Your task to perform on an android device: Search for "alienware area 51" on ebay.com, select the first entry, add it to the cart, then select checkout. Image 0: 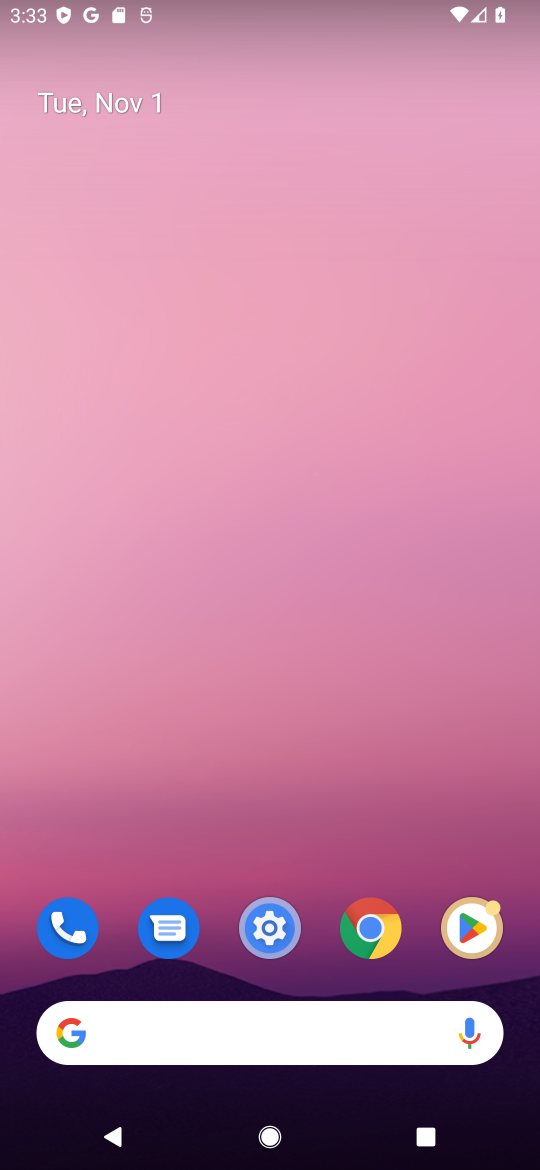
Step 0: click (369, 943)
Your task to perform on an android device: Search for "alienware area 51" on ebay.com, select the first entry, add it to the cart, then select checkout. Image 1: 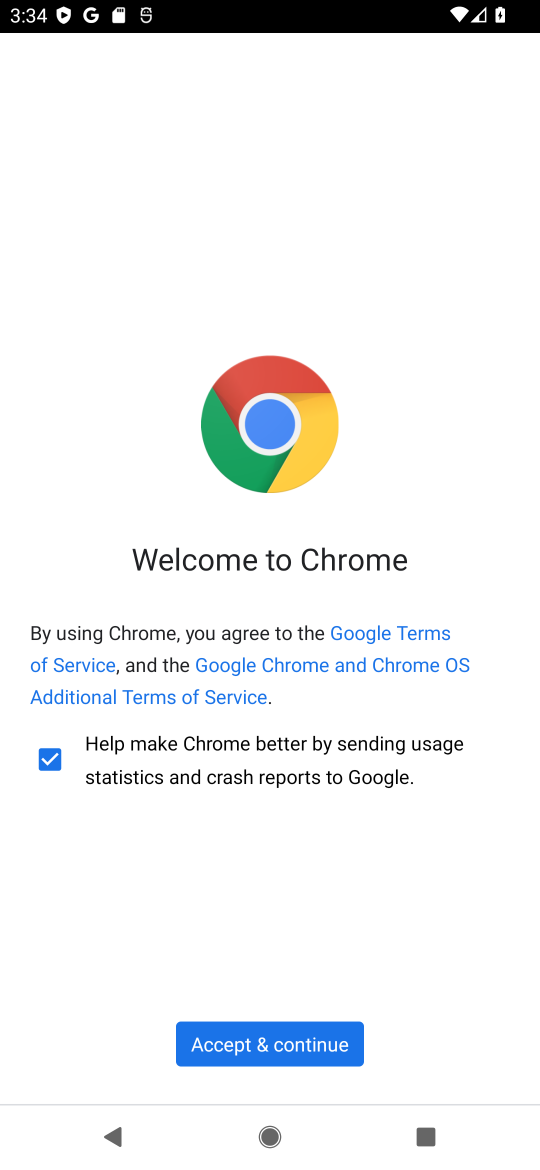
Step 1: click (306, 1041)
Your task to perform on an android device: Search for "alienware area 51" on ebay.com, select the first entry, add it to the cart, then select checkout. Image 2: 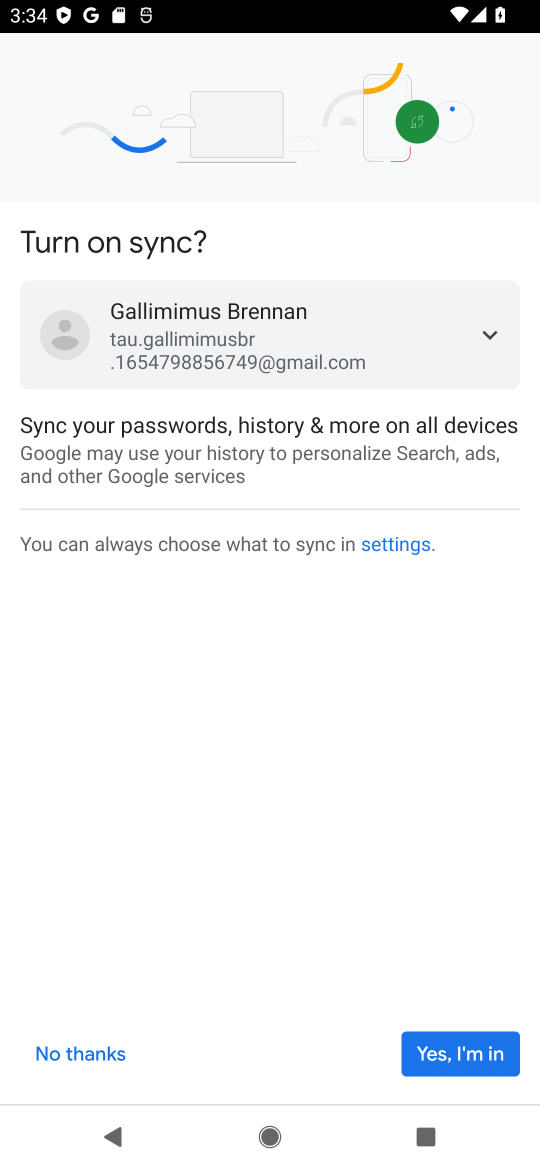
Step 2: click (487, 1056)
Your task to perform on an android device: Search for "alienware area 51" on ebay.com, select the first entry, add it to the cart, then select checkout. Image 3: 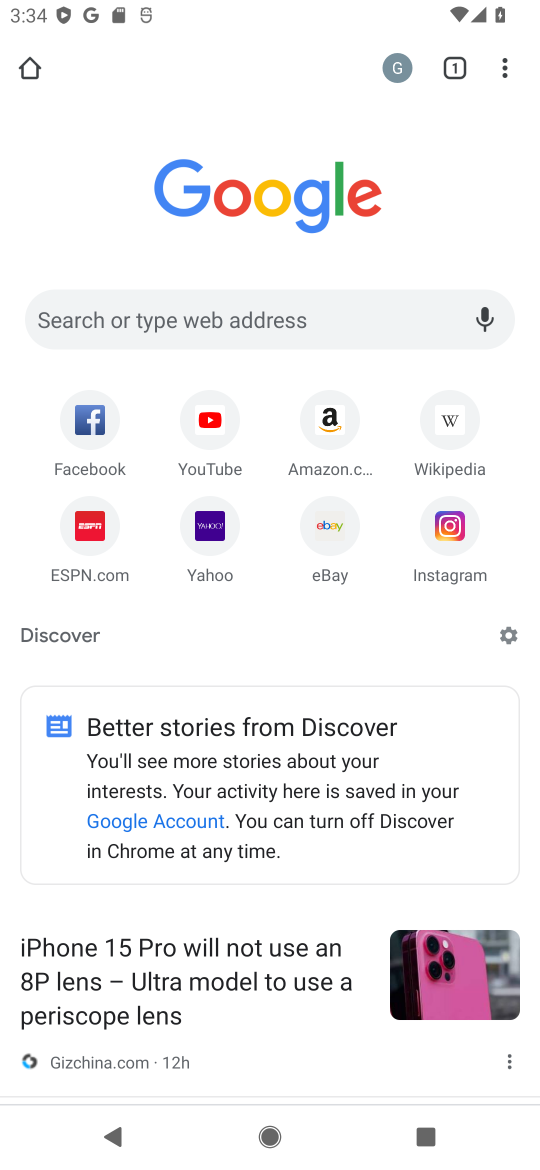
Step 3: click (224, 323)
Your task to perform on an android device: Search for "alienware area 51" on ebay.com, select the first entry, add it to the cart, then select checkout. Image 4: 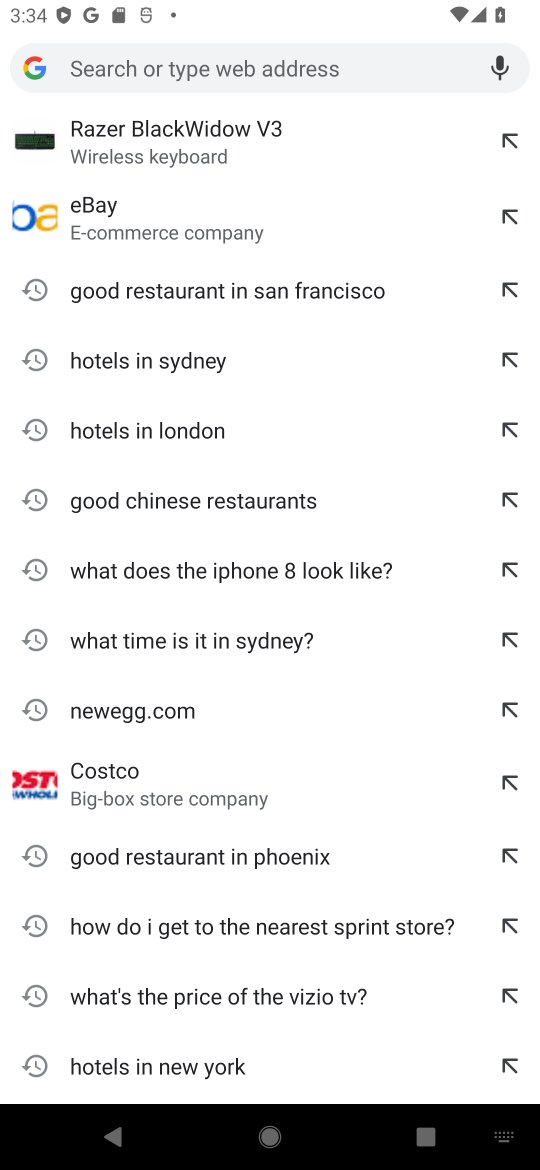
Step 4: type "ebay.com"
Your task to perform on an android device: Search for "alienware area 51" on ebay.com, select the first entry, add it to the cart, then select checkout. Image 5: 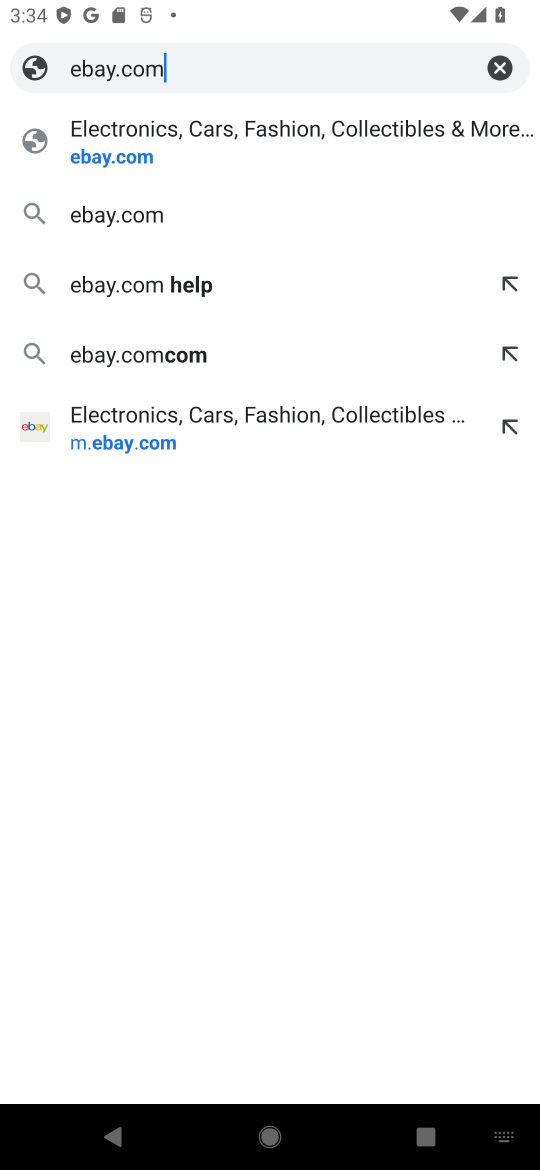
Step 5: press enter
Your task to perform on an android device: Search for "alienware area 51" on ebay.com, select the first entry, add it to the cart, then select checkout. Image 6: 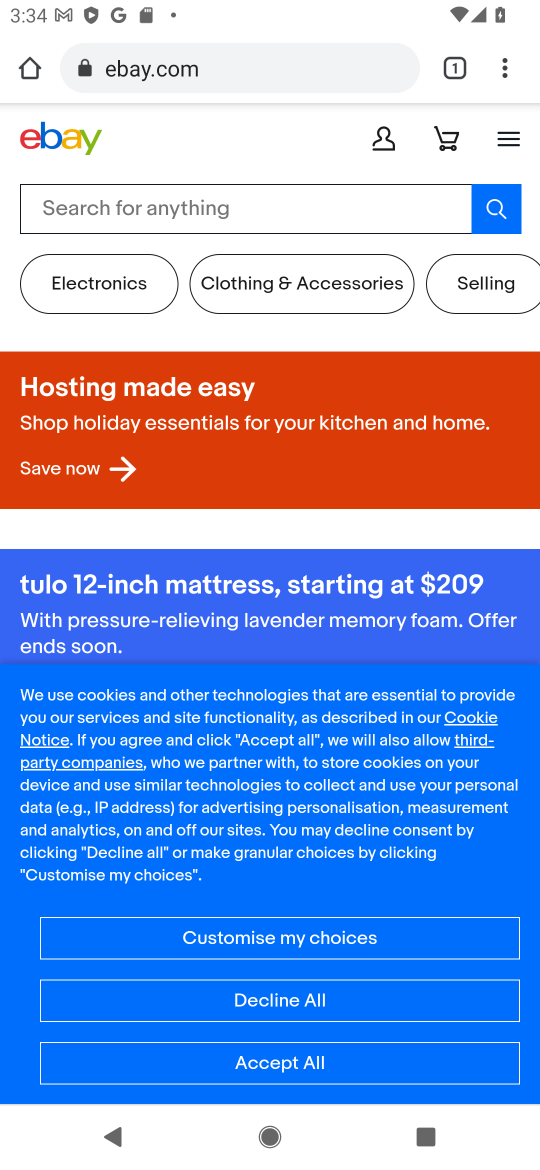
Step 6: click (293, 213)
Your task to perform on an android device: Search for "alienware area 51" on ebay.com, select the first entry, add it to the cart, then select checkout. Image 7: 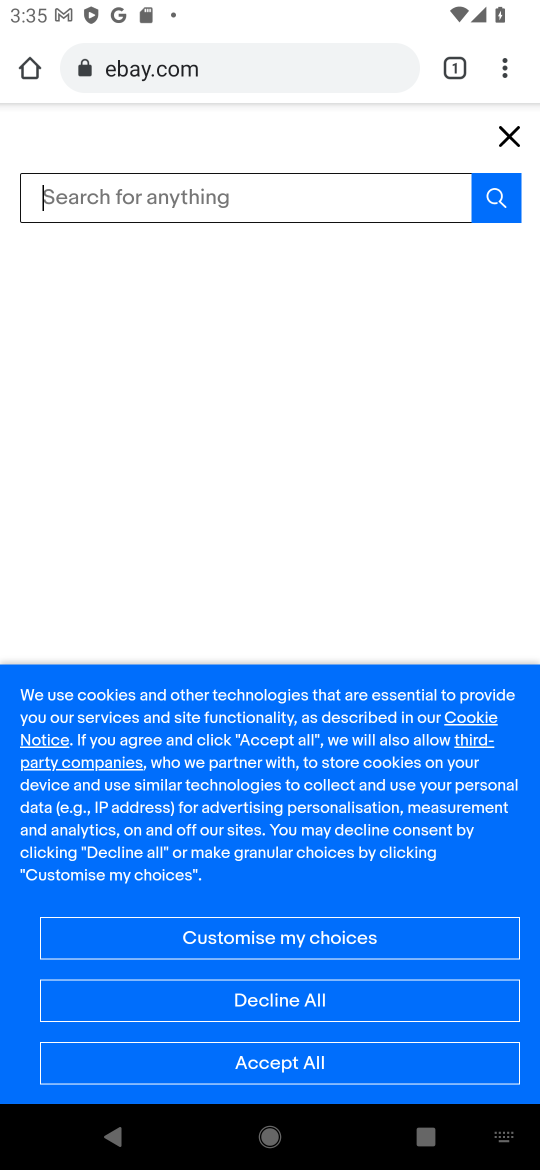
Step 7: click (321, 1067)
Your task to perform on an android device: Search for "alienware area 51" on ebay.com, select the first entry, add it to the cart, then select checkout. Image 8: 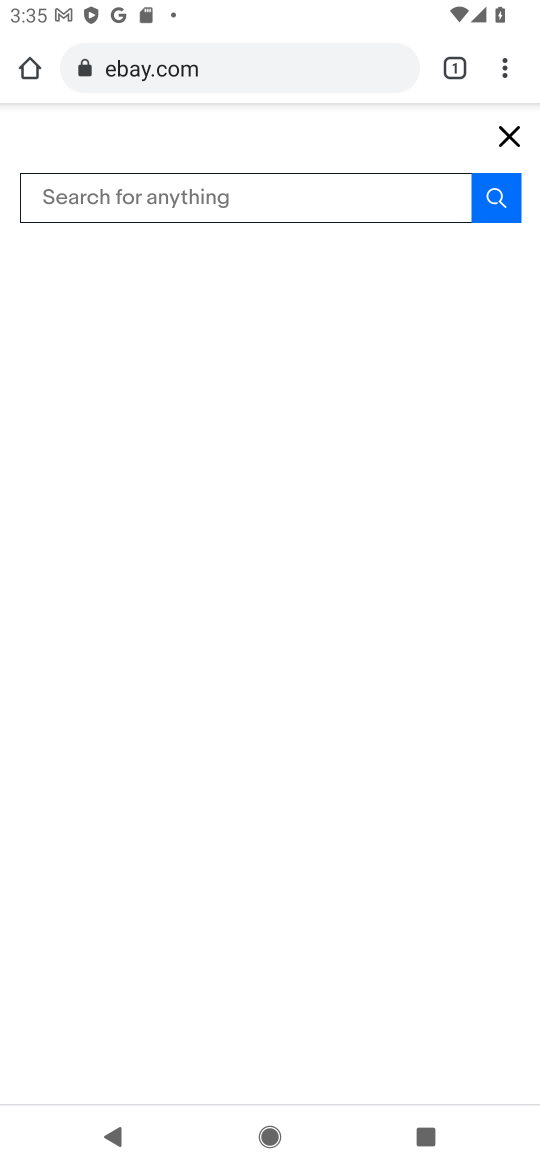
Step 8: click (276, 203)
Your task to perform on an android device: Search for "alienware area 51" on ebay.com, select the first entry, add it to the cart, then select checkout. Image 9: 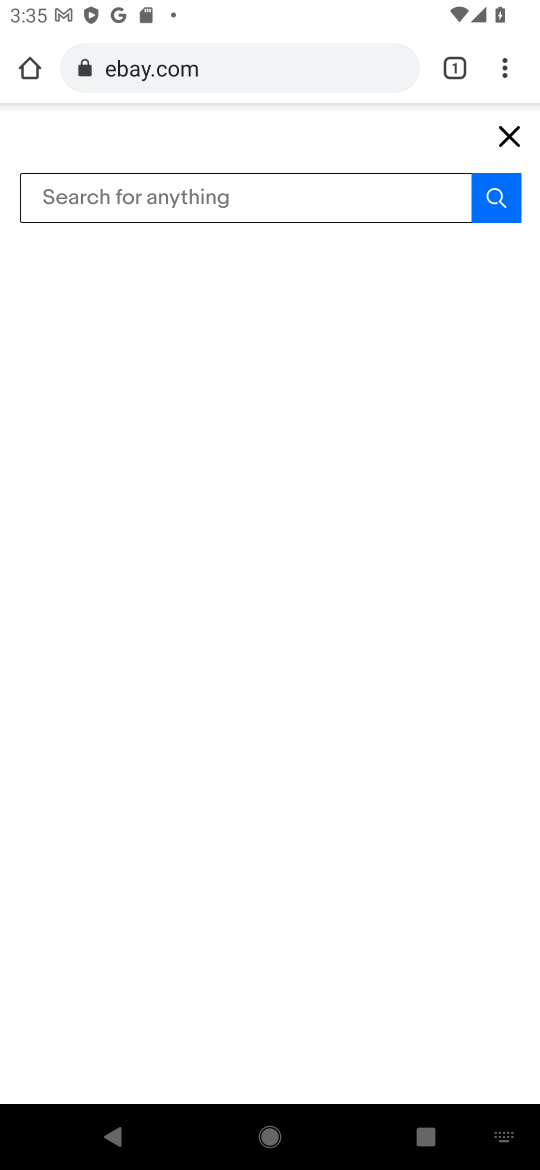
Step 9: type "alienware area 51"
Your task to perform on an android device: Search for "alienware area 51" on ebay.com, select the first entry, add it to the cart, then select checkout. Image 10: 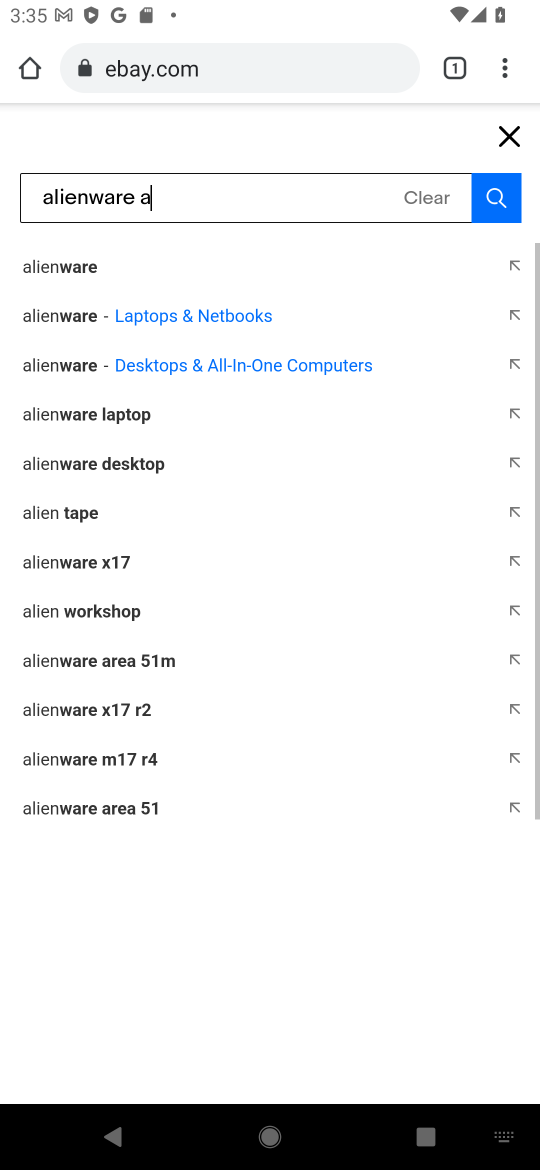
Step 10: type ""
Your task to perform on an android device: Search for "alienware area 51" on ebay.com, select the first entry, add it to the cart, then select checkout. Image 11: 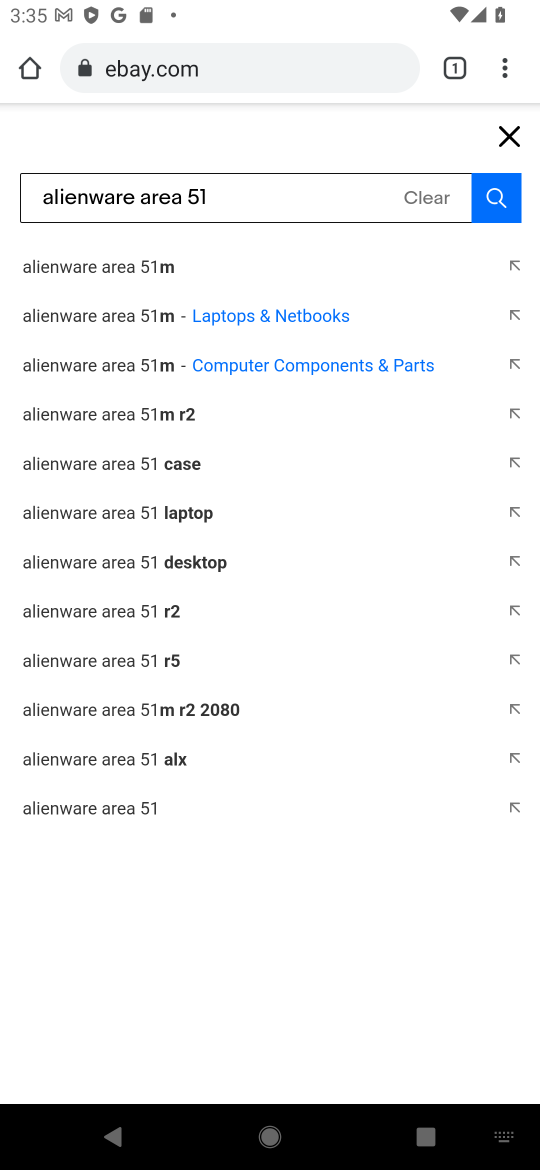
Step 11: press enter
Your task to perform on an android device: Search for "alienware area 51" on ebay.com, select the first entry, add it to the cart, then select checkout. Image 12: 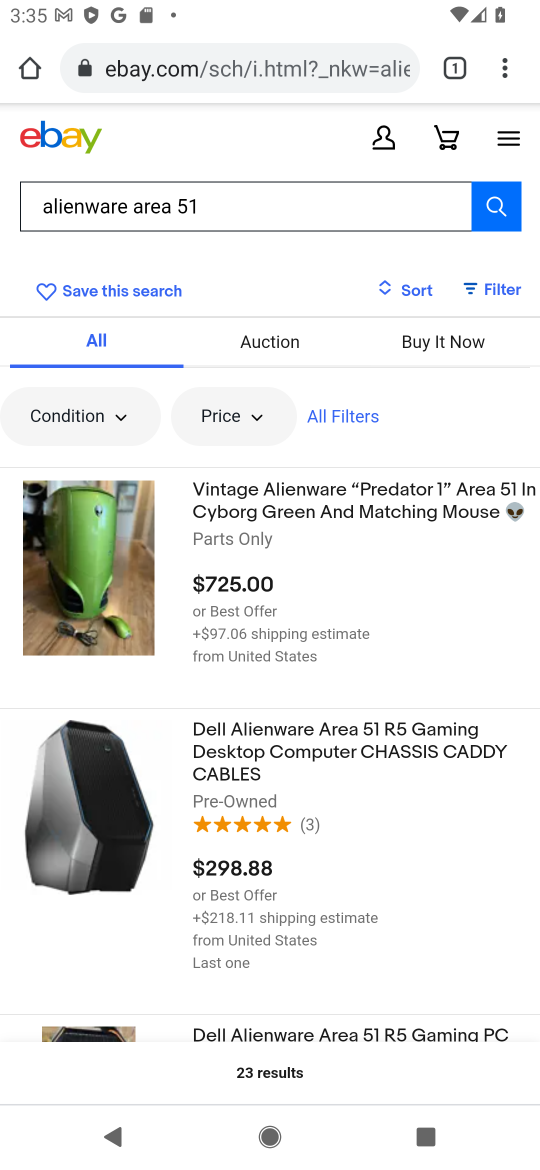
Step 12: click (304, 513)
Your task to perform on an android device: Search for "alienware area 51" on ebay.com, select the first entry, add it to the cart, then select checkout. Image 13: 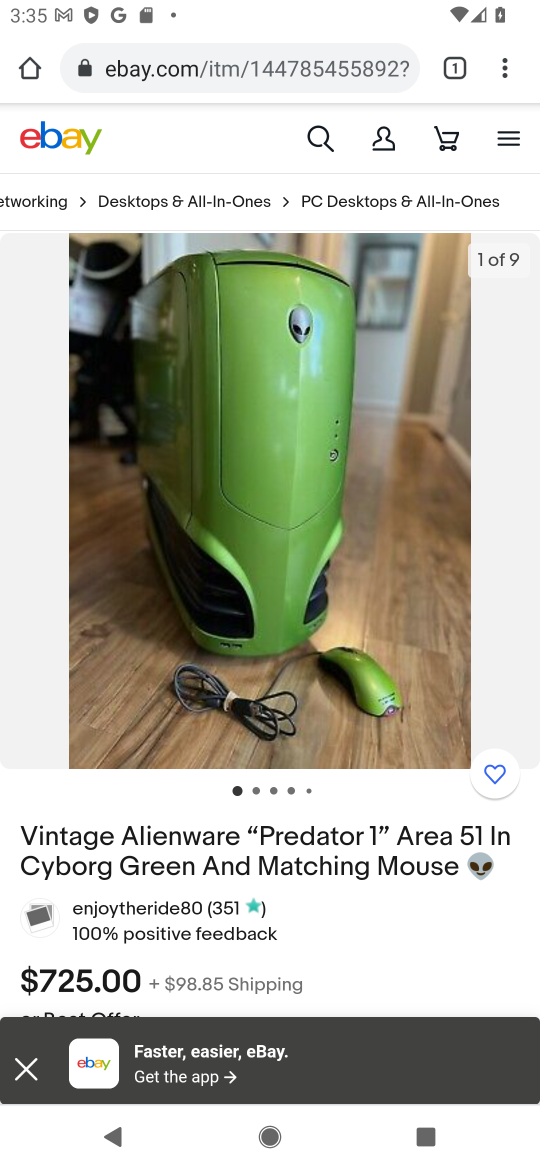
Step 13: drag from (298, 902) to (330, 507)
Your task to perform on an android device: Search for "alienware area 51" on ebay.com, select the first entry, add it to the cart, then select checkout. Image 14: 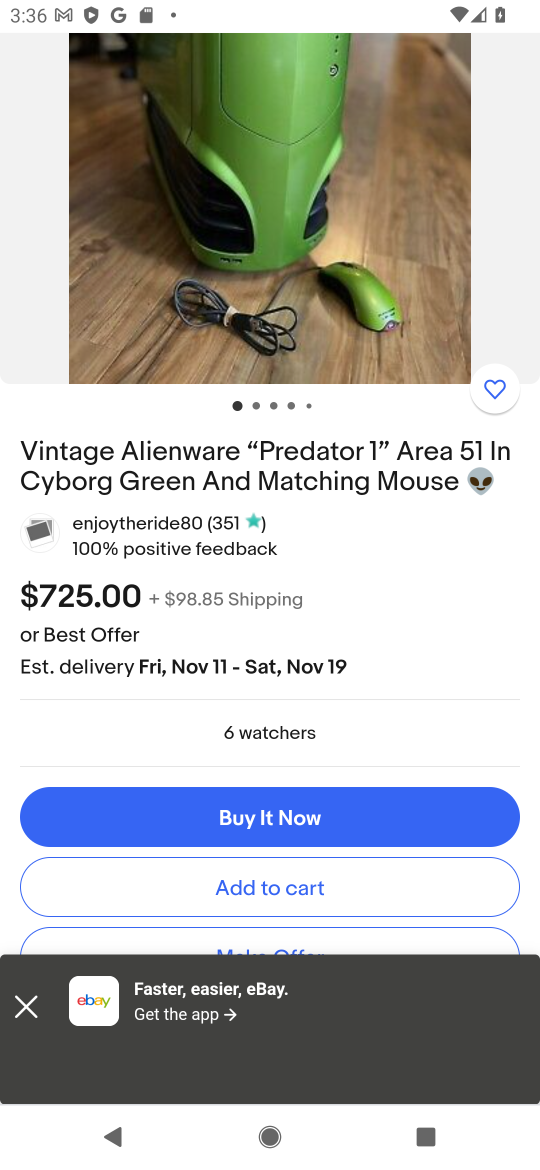
Step 14: click (336, 889)
Your task to perform on an android device: Search for "alienware area 51" on ebay.com, select the first entry, add it to the cart, then select checkout. Image 15: 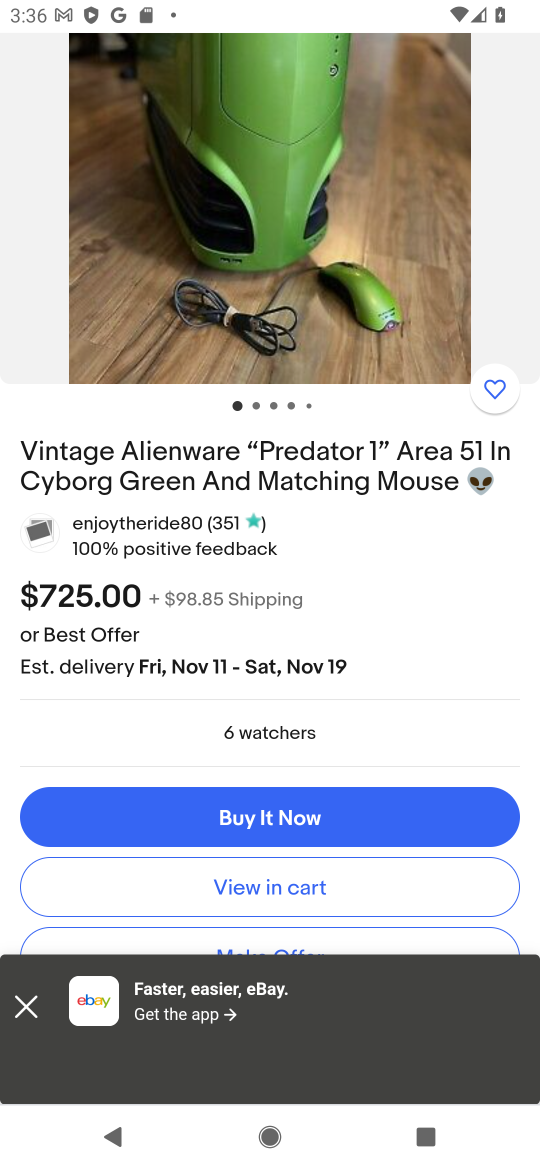
Step 15: click (349, 879)
Your task to perform on an android device: Search for "alienware area 51" on ebay.com, select the first entry, add it to the cart, then select checkout. Image 16: 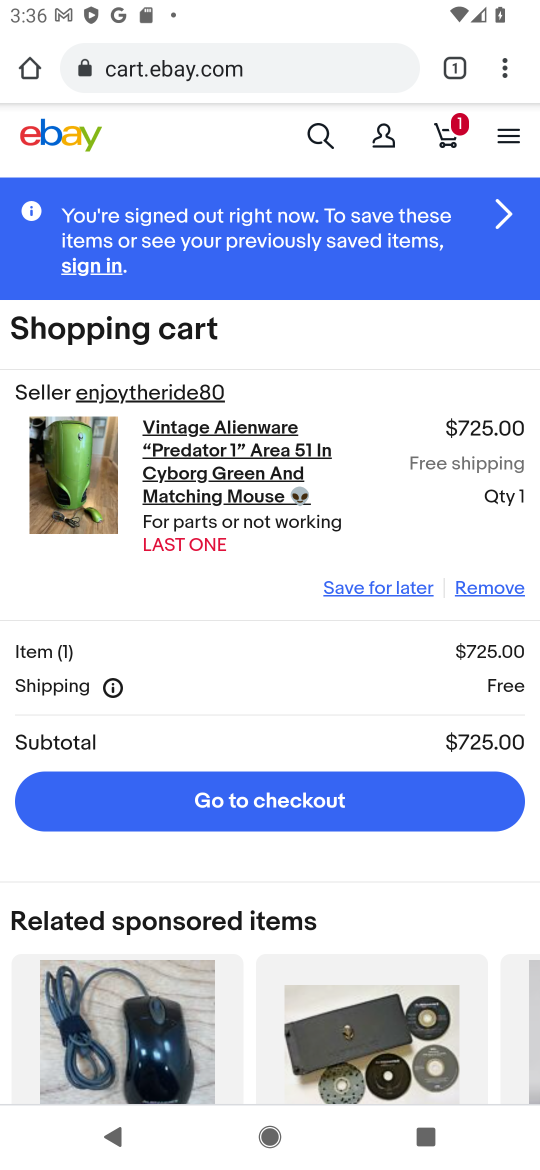
Step 16: click (380, 874)
Your task to perform on an android device: Search for "alienware area 51" on ebay.com, select the first entry, add it to the cart, then select checkout. Image 17: 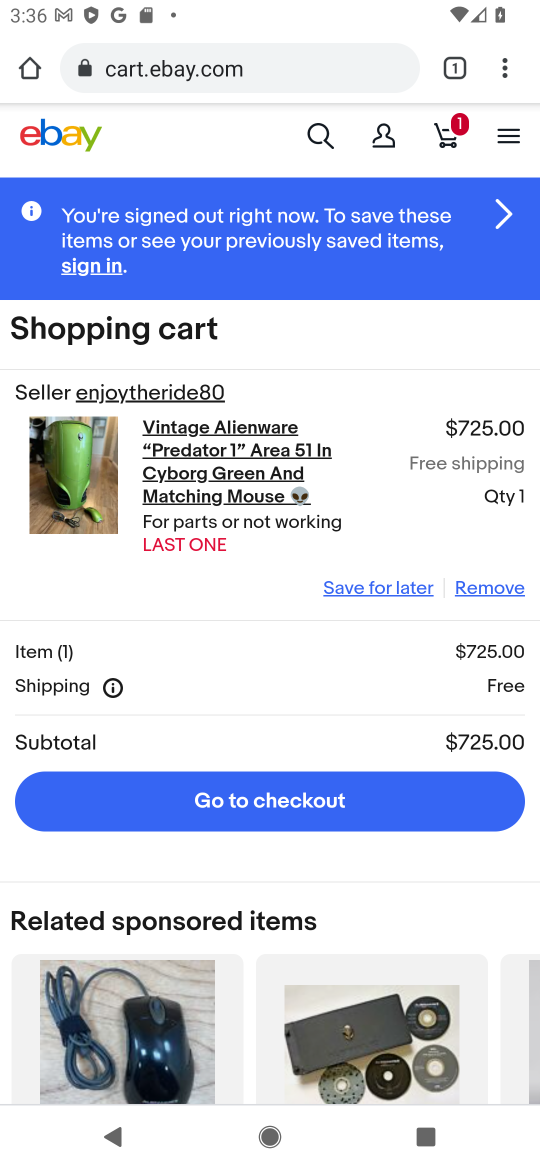
Step 17: click (335, 781)
Your task to perform on an android device: Search for "alienware area 51" on ebay.com, select the first entry, add it to the cart, then select checkout. Image 18: 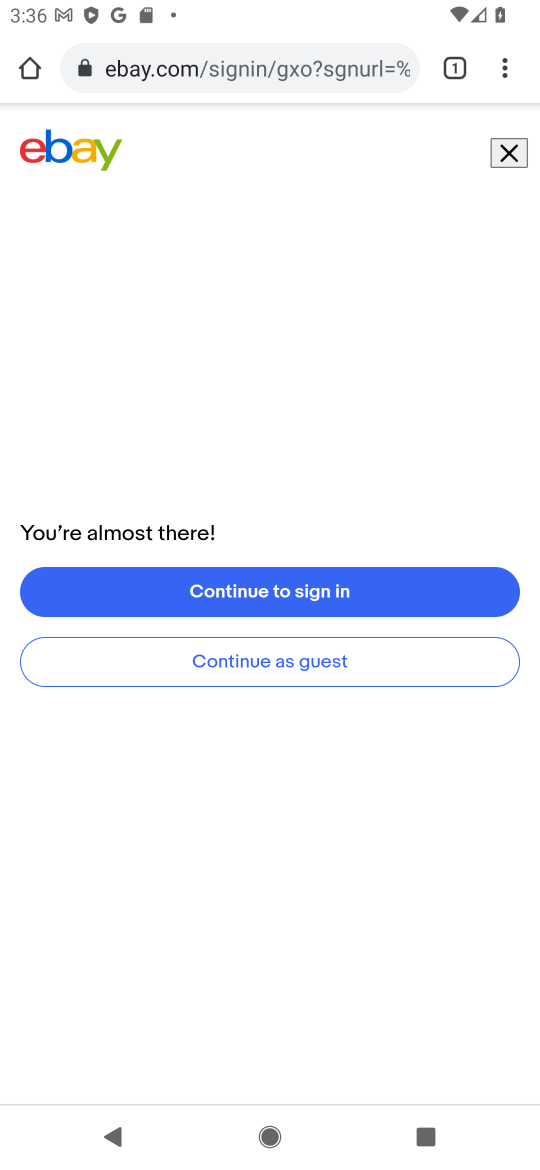
Step 18: click (344, 658)
Your task to perform on an android device: Search for "alienware area 51" on ebay.com, select the first entry, add it to the cart, then select checkout. Image 19: 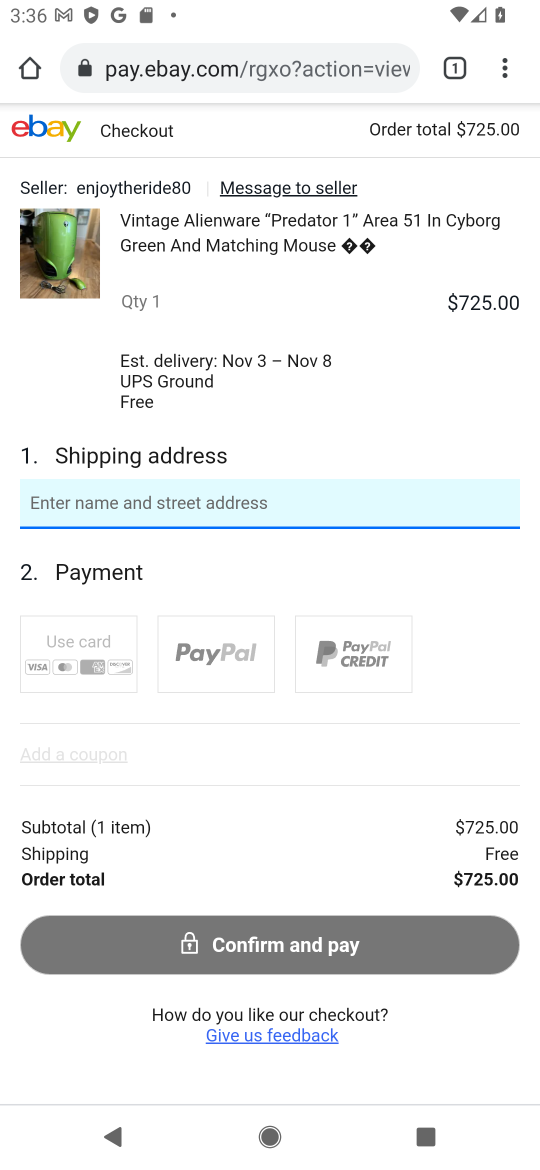
Step 19: task complete